Your task to perform on an android device: change keyboard looks Image 0: 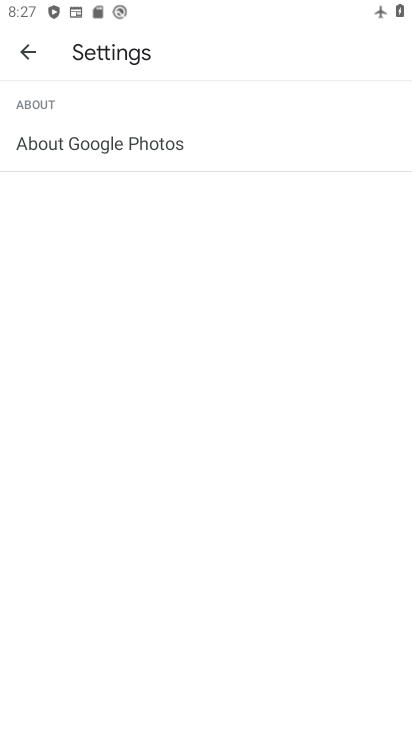
Step 0: press home button
Your task to perform on an android device: change keyboard looks Image 1: 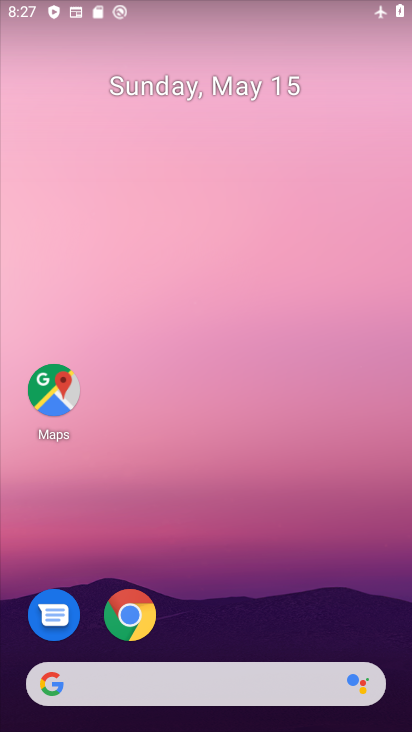
Step 1: drag from (153, 592) to (162, 425)
Your task to perform on an android device: change keyboard looks Image 2: 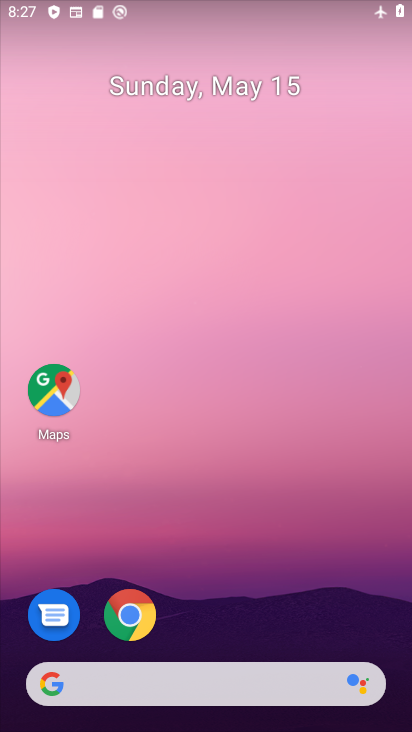
Step 2: drag from (235, 657) to (239, 210)
Your task to perform on an android device: change keyboard looks Image 3: 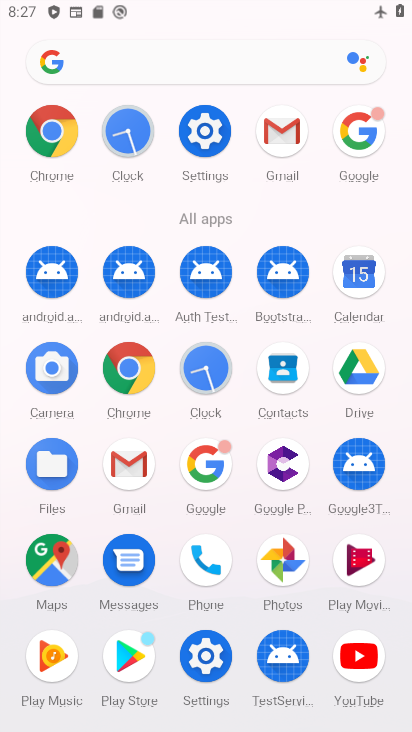
Step 3: click (208, 126)
Your task to perform on an android device: change keyboard looks Image 4: 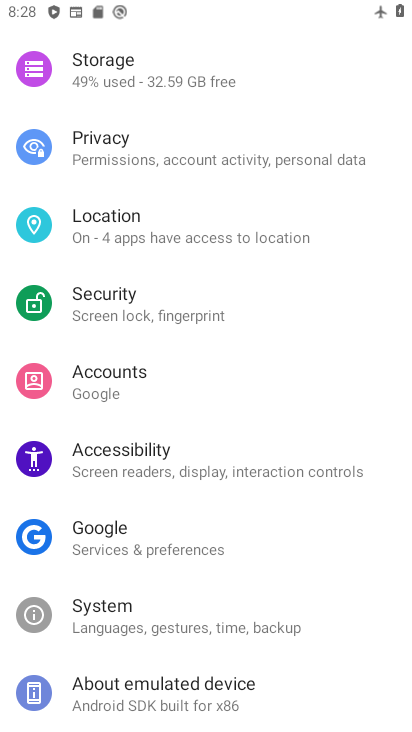
Step 4: drag from (196, 698) to (200, 348)
Your task to perform on an android device: change keyboard looks Image 5: 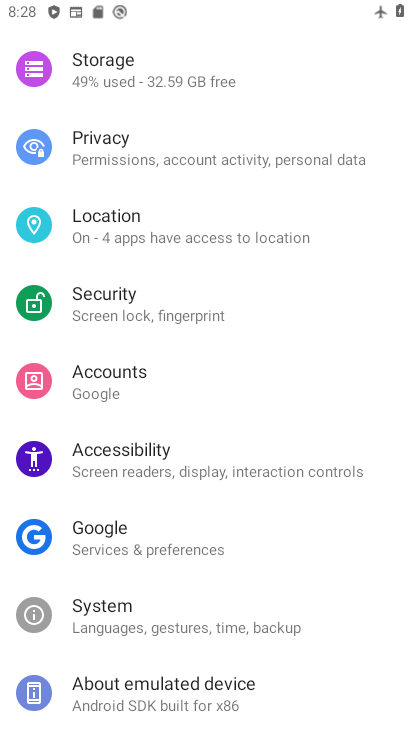
Step 5: click (93, 626)
Your task to perform on an android device: change keyboard looks Image 6: 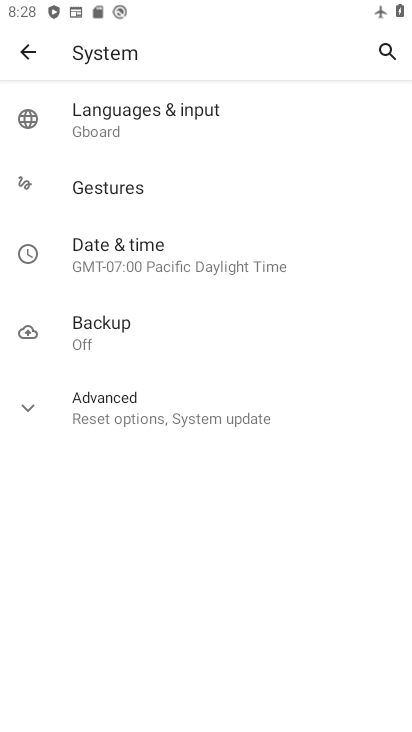
Step 6: click (135, 123)
Your task to perform on an android device: change keyboard looks Image 7: 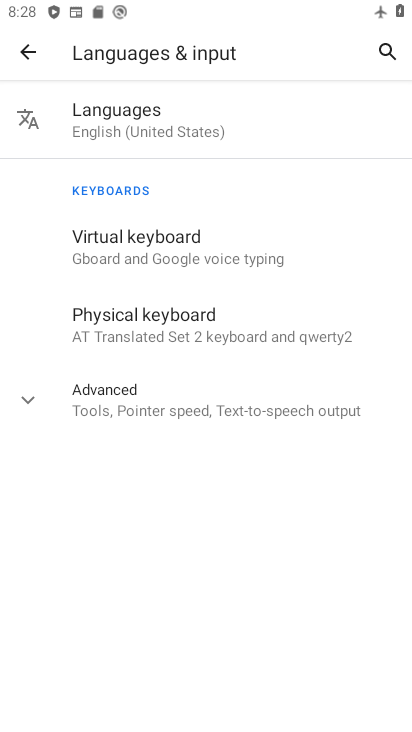
Step 7: click (114, 249)
Your task to perform on an android device: change keyboard looks Image 8: 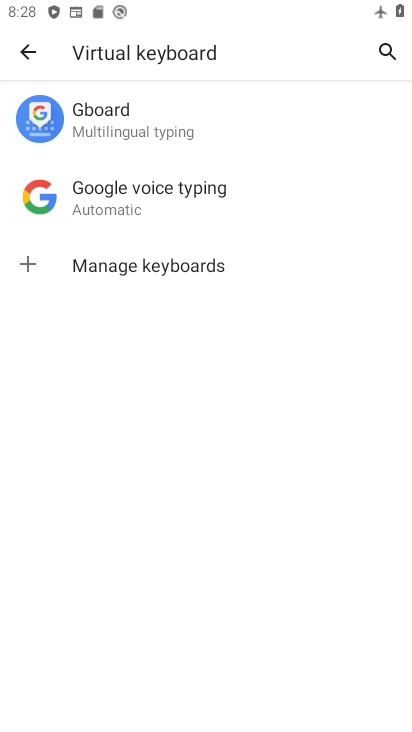
Step 8: click (112, 124)
Your task to perform on an android device: change keyboard looks Image 9: 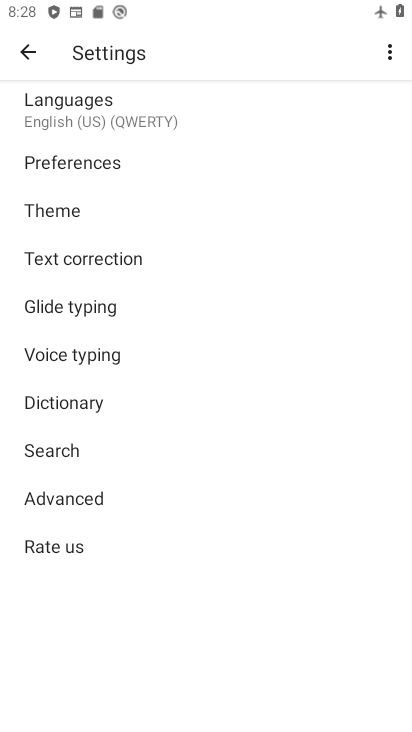
Step 9: click (60, 115)
Your task to perform on an android device: change keyboard looks Image 10: 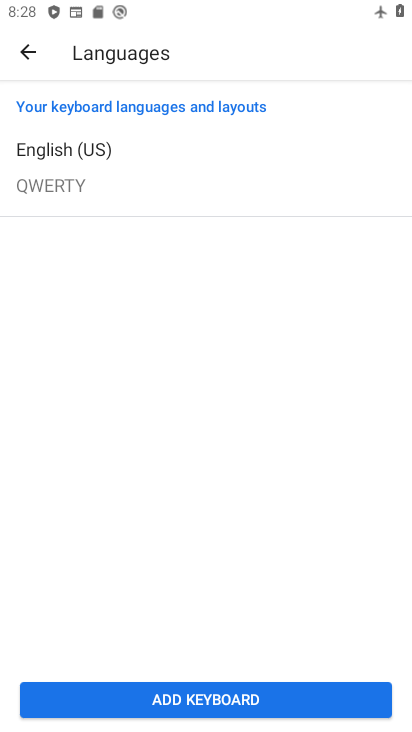
Step 10: click (19, 58)
Your task to perform on an android device: change keyboard looks Image 11: 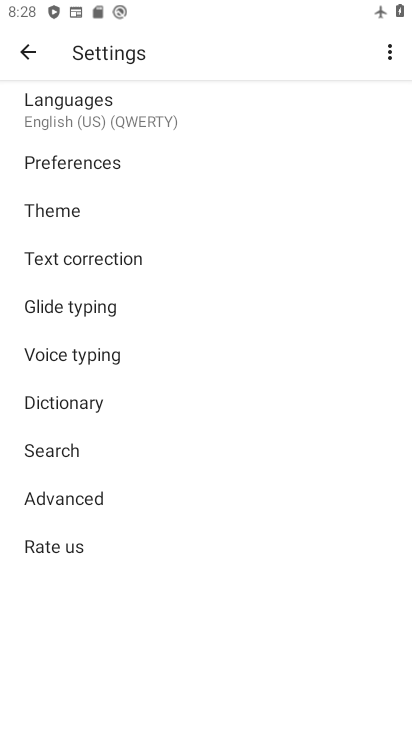
Step 11: click (59, 212)
Your task to perform on an android device: change keyboard looks Image 12: 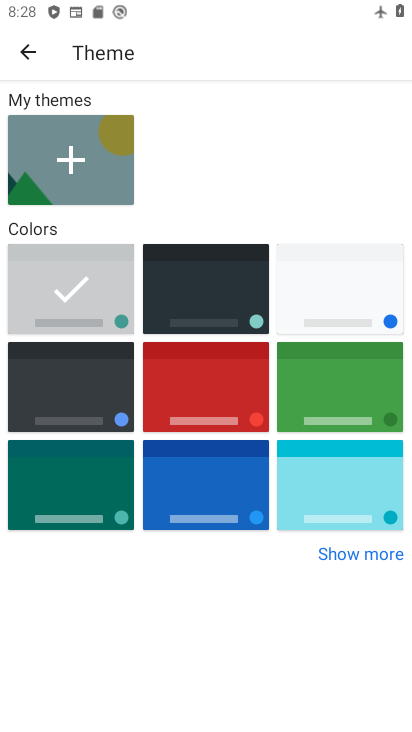
Step 12: click (208, 303)
Your task to perform on an android device: change keyboard looks Image 13: 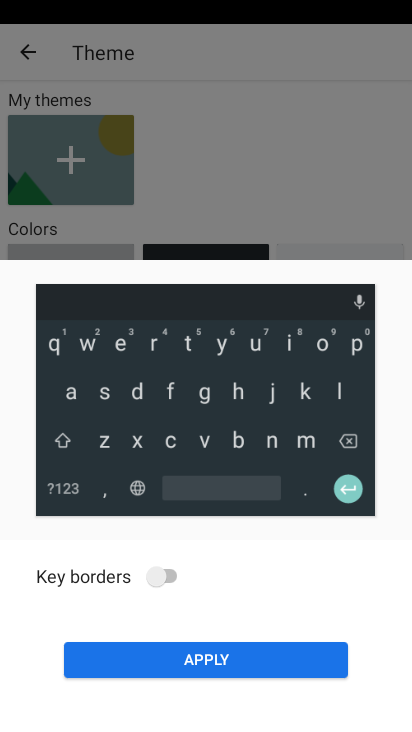
Step 13: click (170, 667)
Your task to perform on an android device: change keyboard looks Image 14: 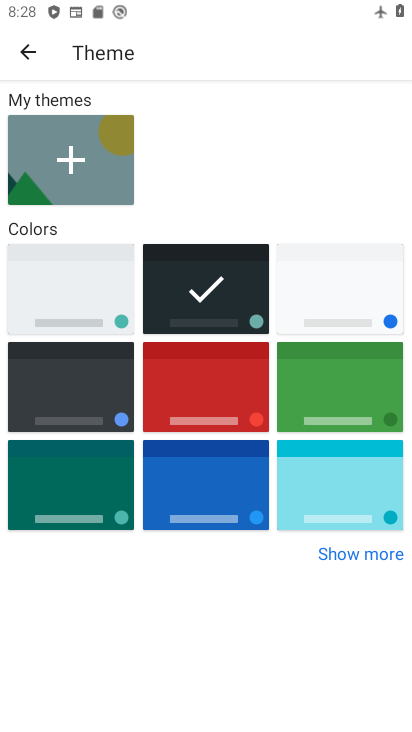
Step 14: task complete